Your task to perform on an android device: uninstall "PUBG MOBILE" Image 0: 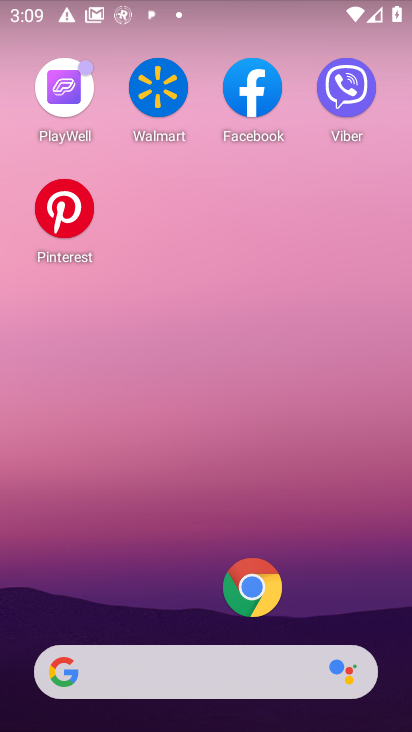
Step 0: press back button
Your task to perform on an android device: uninstall "PUBG MOBILE" Image 1: 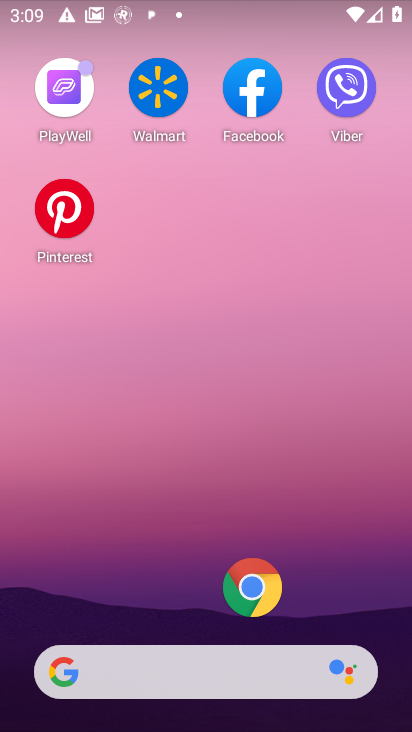
Step 1: drag from (194, 561) to (204, 253)
Your task to perform on an android device: uninstall "PUBG MOBILE" Image 2: 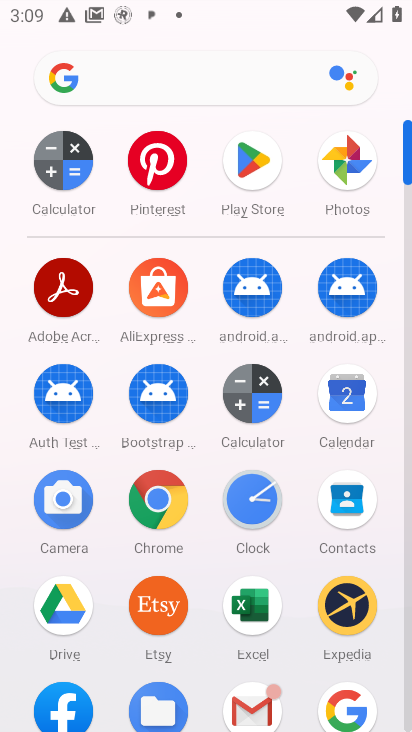
Step 2: click (267, 178)
Your task to perform on an android device: uninstall "PUBG MOBILE" Image 3: 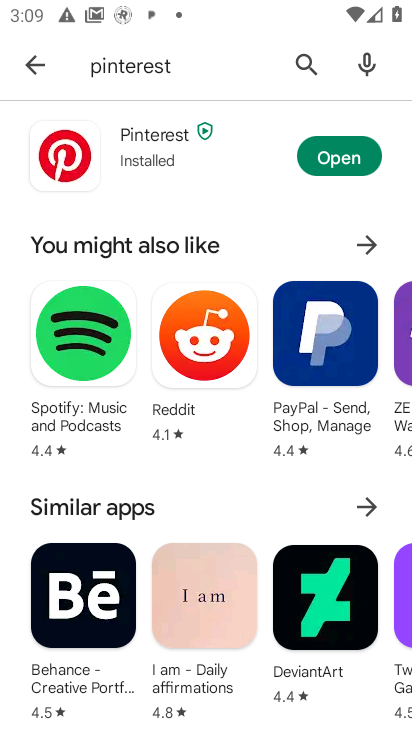
Step 3: click (306, 75)
Your task to perform on an android device: uninstall "PUBG MOBILE" Image 4: 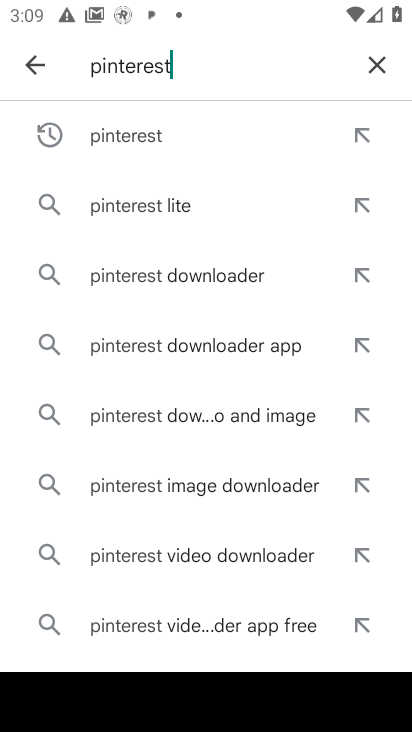
Step 4: click (385, 60)
Your task to perform on an android device: uninstall "PUBG MOBILE" Image 5: 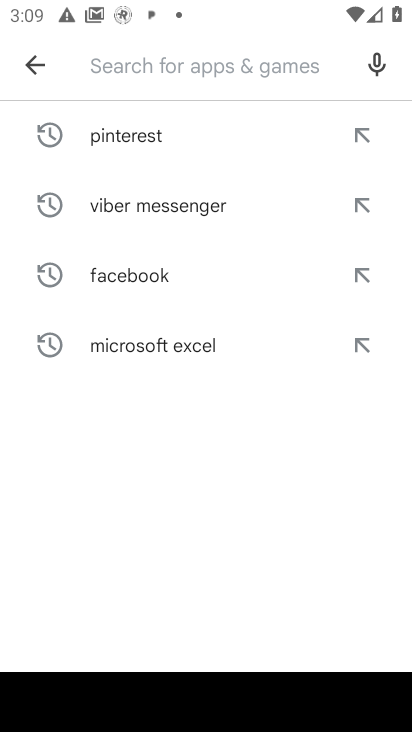
Step 5: type "PUBG MOBILE"
Your task to perform on an android device: uninstall "PUBG MOBILE" Image 6: 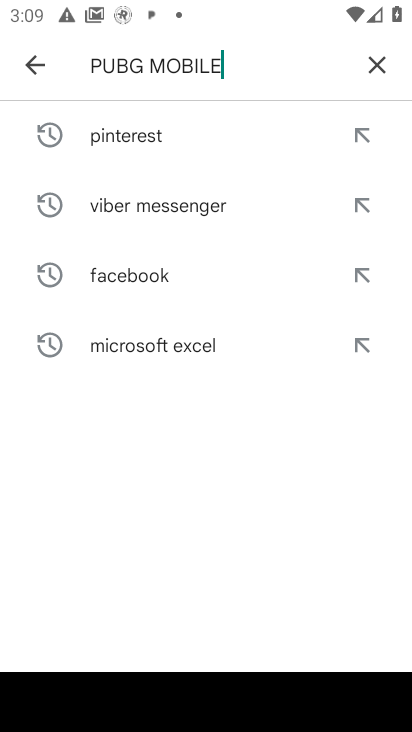
Step 6: type ""
Your task to perform on an android device: uninstall "PUBG MOBILE" Image 7: 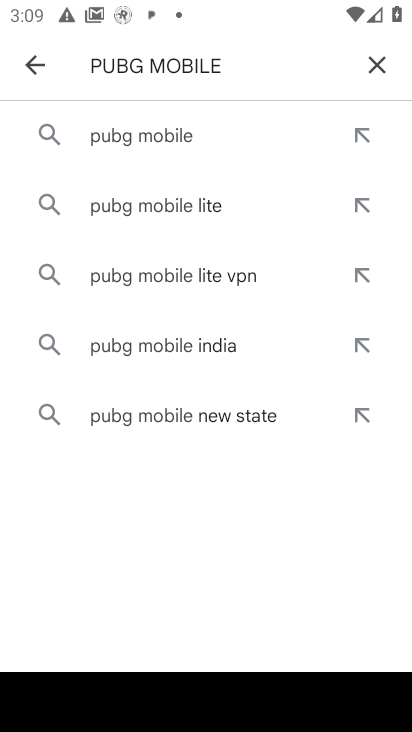
Step 7: click (212, 140)
Your task to perform on an android device: uninstall "PUBG MOBILE" Image 8: 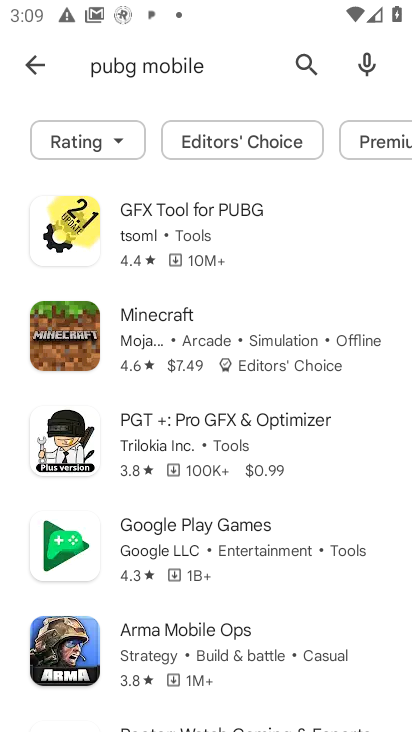
Step 8: task complete